Your task to perform on an android device: open a bookmark in the chrome app Image 0: 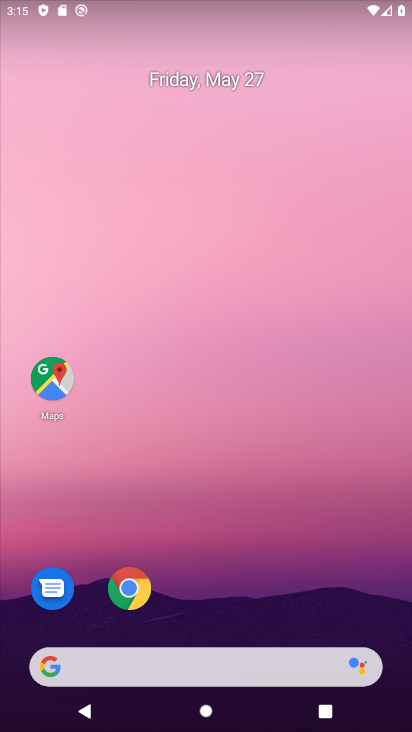
Step 0: click (135, 592)
Your task to perform on an android device: open a bookmark in the chrome app Image 1: 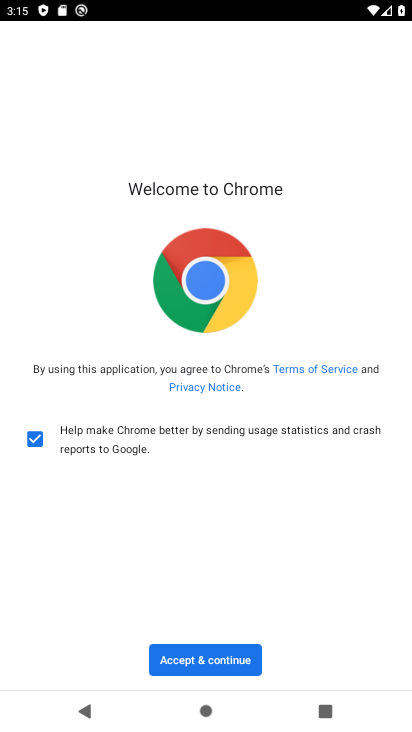
Step 1: click (247, 660)
Your task to perform on an android device: open a bookmark in the chrome app Image 2: 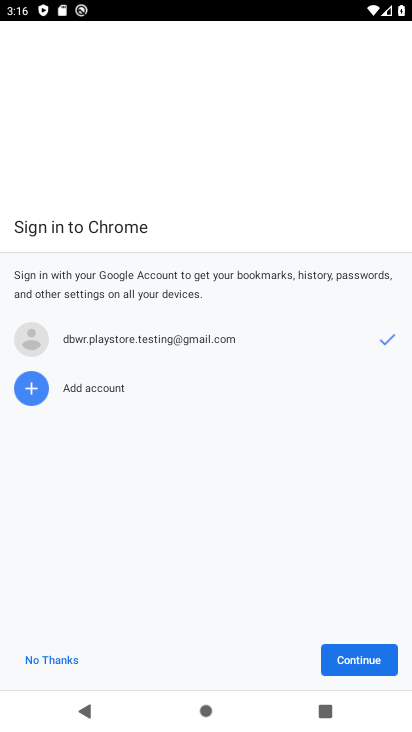
Step 2: click (379, 653)
Your task to perform on an android device: open a bookmark in the chrome app Image 3: 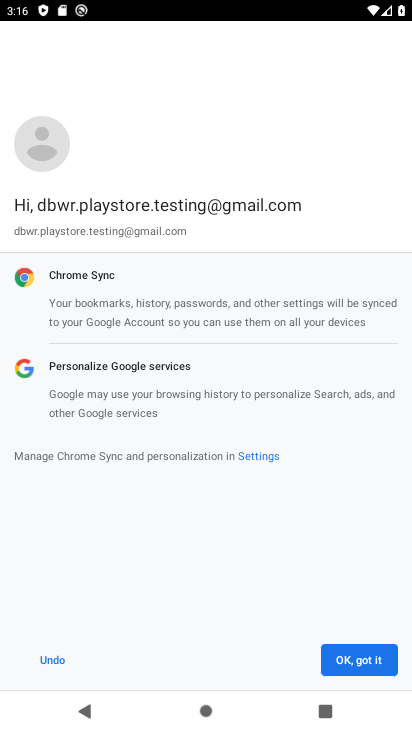
Step 3: click (336, 654)
Your task to perform on an android device: open a bookmark in the chrome app Image 4: 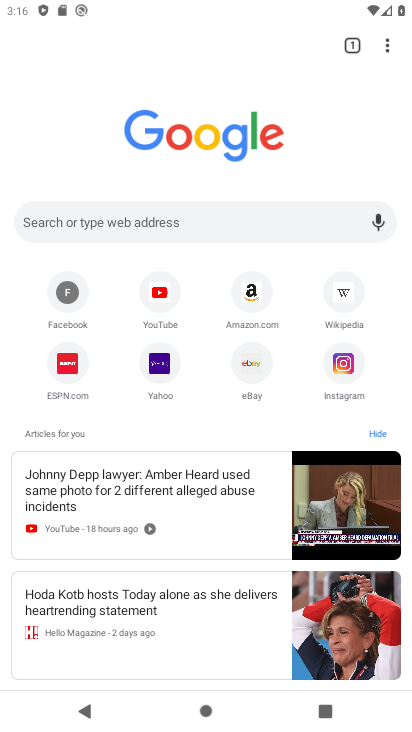
Step 4: click (386, 48)
Your task to perform on an android device: open a bookmark in the chrome app Image 5: 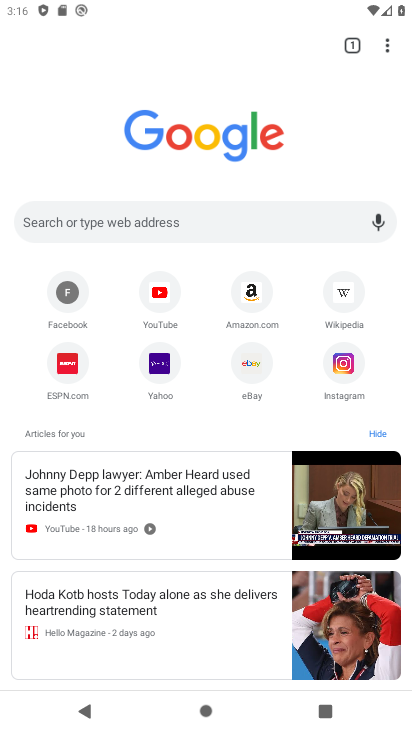
Step 5: task complete